Your task to perform on an android device: delete location history Image 0: 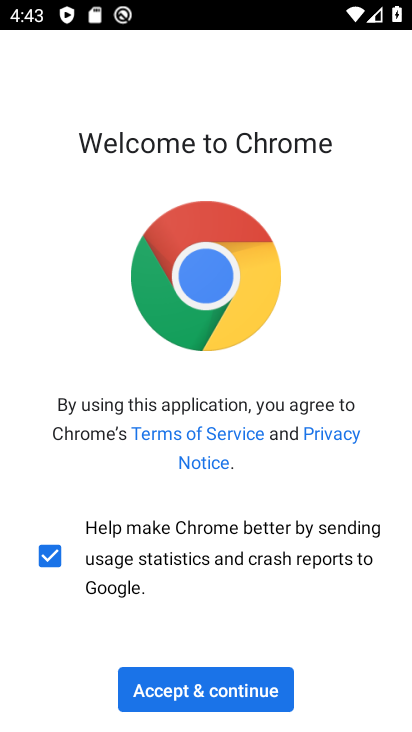
Step 0: click (207, 679)
Your task to perform on an android device: delete location history Image 1: 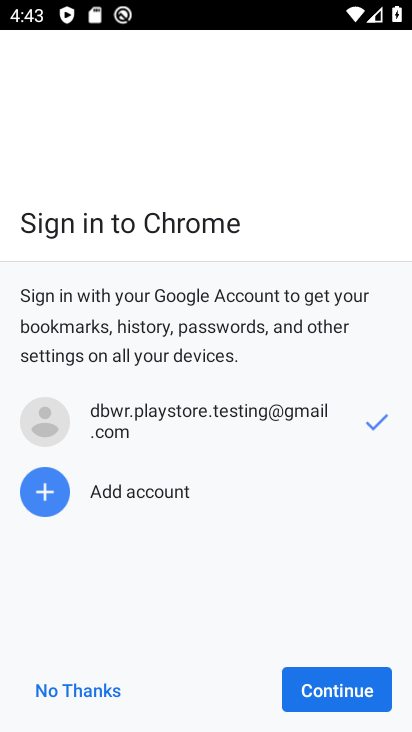
Step 1: click (328, 682)
Your task to perform on an android device: delete location history Image 2: 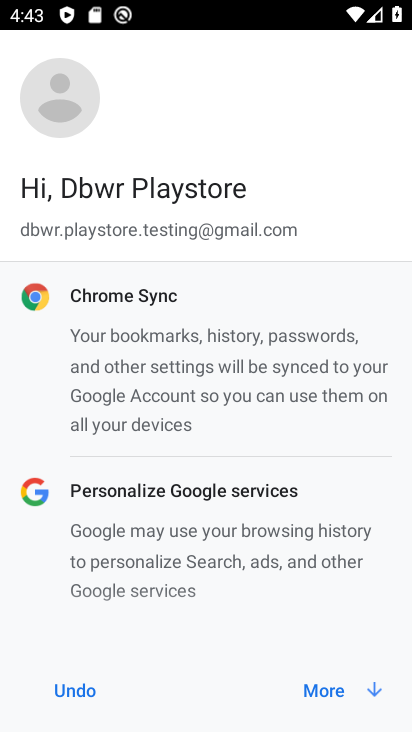
Step 2: click (328, 682)
Your task to perform on an android device: delete location history Image 3: 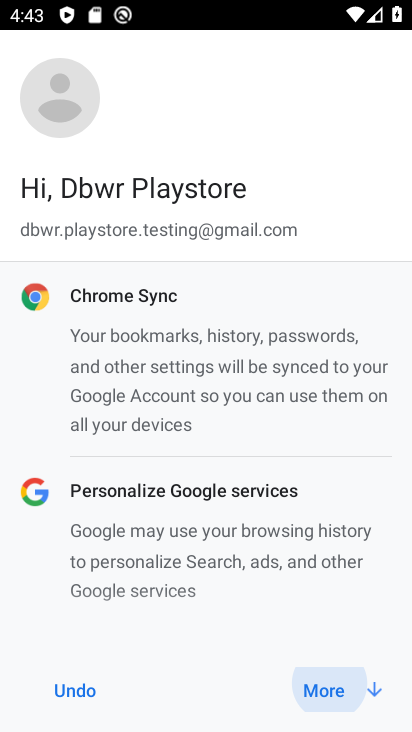
Step 3: click (328, 682)
Your task to perform on an android device: delete location history Image 4: 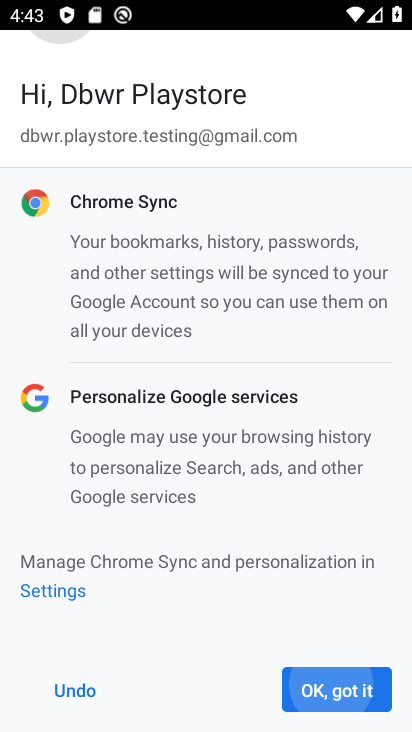
Step 4: click (328, 682)
Your task to perform on an android device: delete location history Image 5: 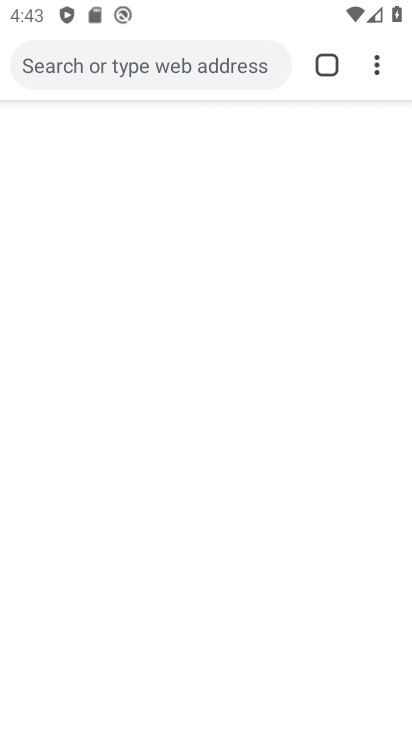
Step 5: click (328, 682)
Your task to perform on an android device: delete location history Image 6: 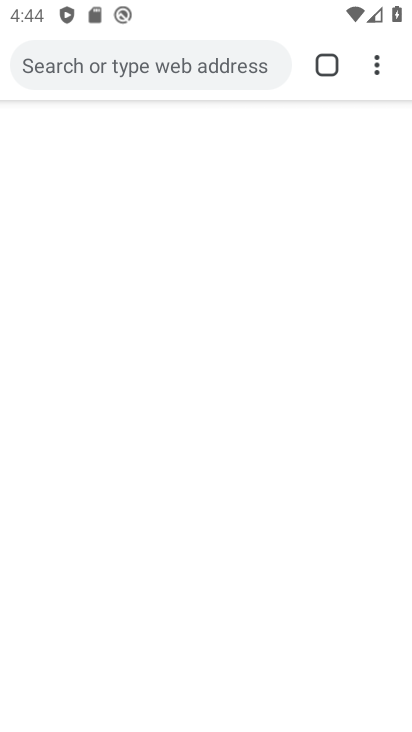
Step 6: click (328, 682)
Your task to perform on an android device: delete location history Image 7: 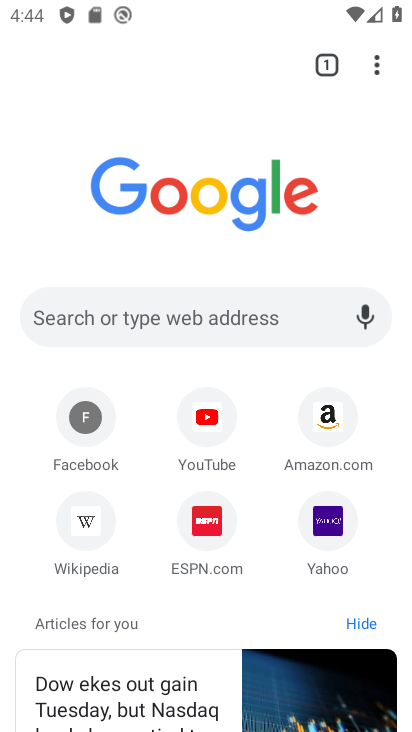
Step 7: press back button
Your task to perform on an android device: delete location history Image 8: 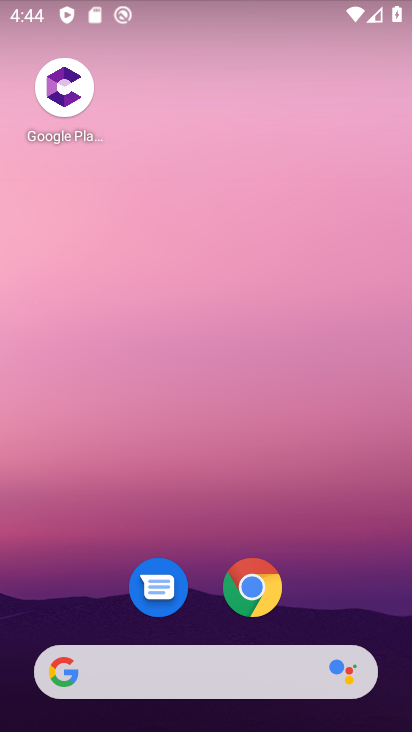
Step 8: drag from (274, 573) to (204, 86)
Your task to perform on an android device: delete location history Image 9: 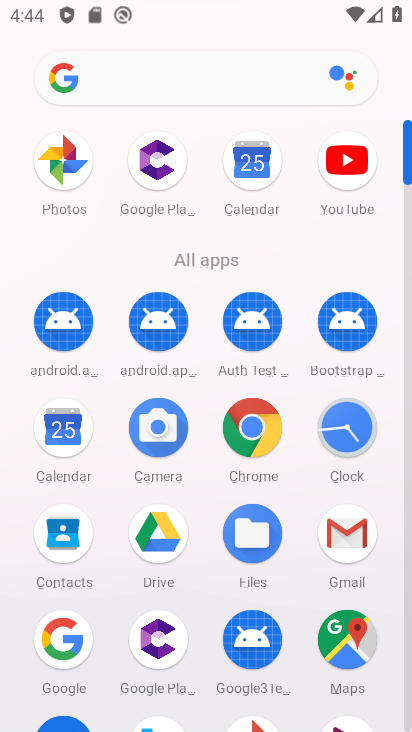
Step 9: drag from (297, 198) to (293, 125)
Your task to perform on an android device: delete location history Image 10: 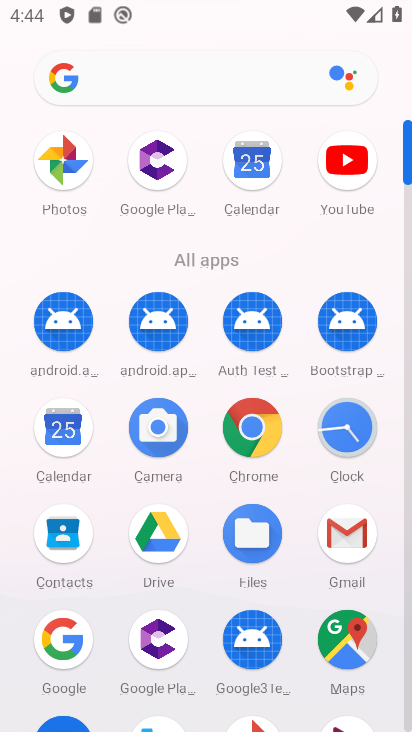
Step 10: drag from (202, 594) to (144, 128)
Your task to perform on an android device: delete location history Image 11: 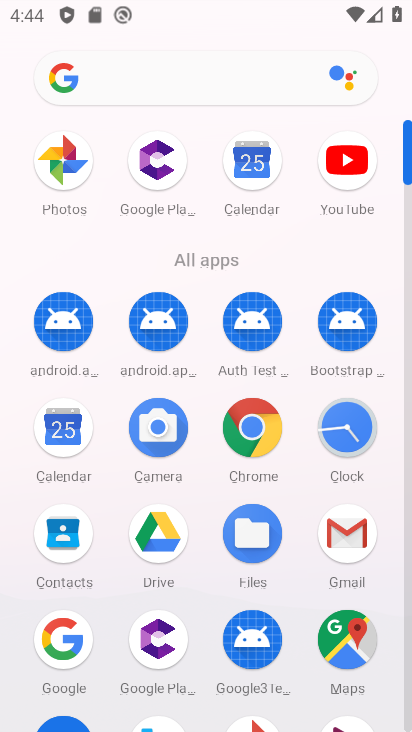
Step 11: drag from (170, 391) to (170, 67)
Your task to perform on an android device: delete location history Image 12: 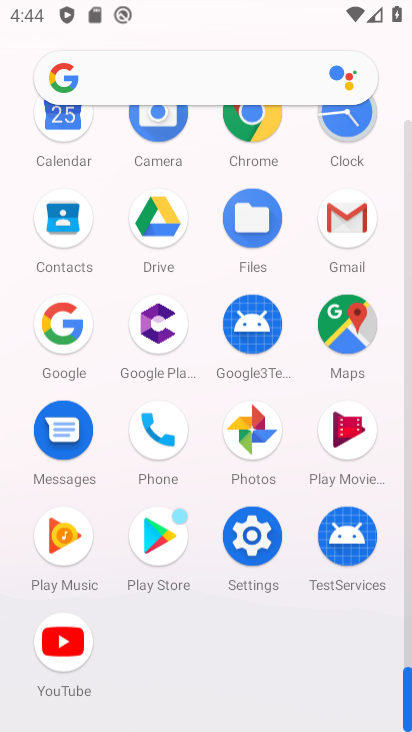
Step 12: drag from (187, 451) to (176, 204)
Your task to perform on an android device: delete location history Image 13: 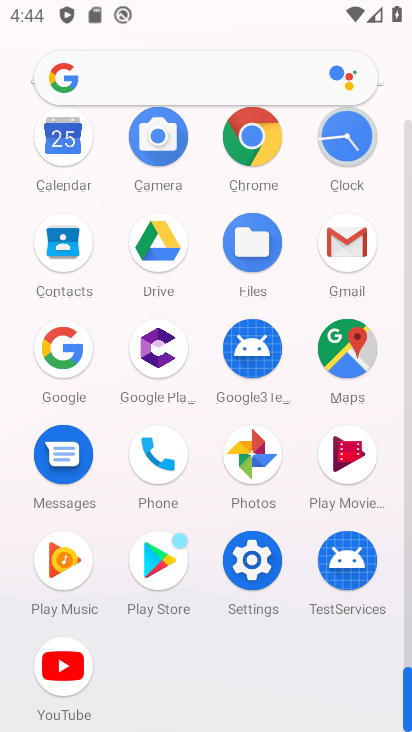
Step 13: click (256, 564)
Your task to perform on an android device: delete location history Image 14: 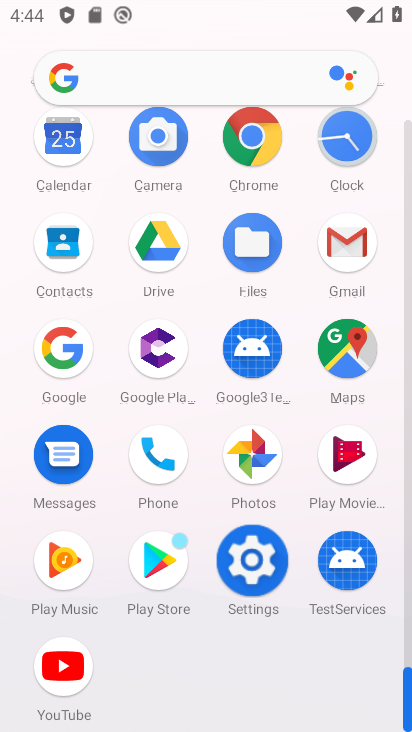
Step 14: click (258, 565)
Your task to perform on an android device: delete location history Image 15: 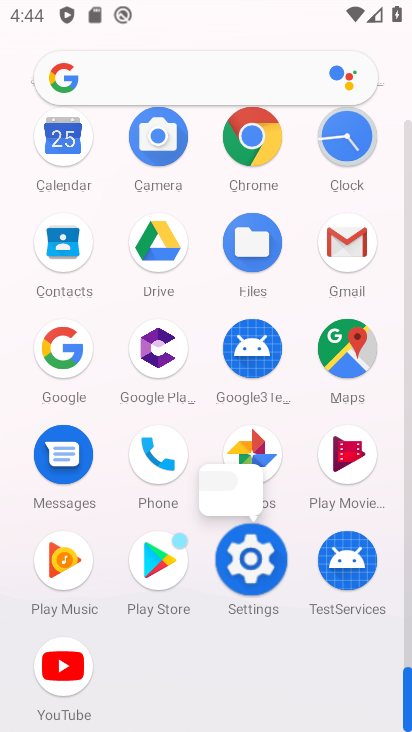
Step 15: click (259, 566)
Your task to perform on an android device: delete location history Image 16: 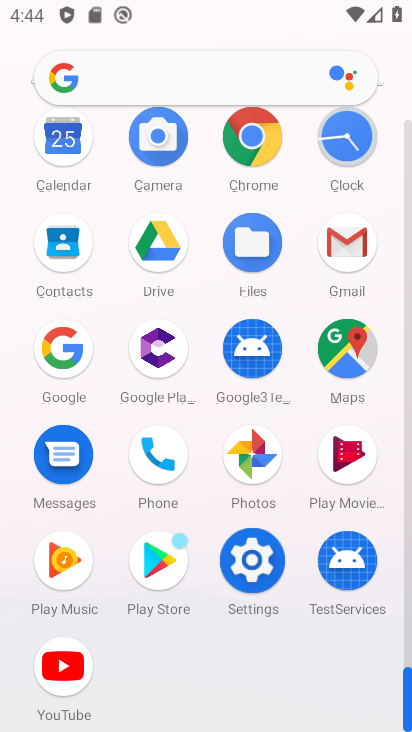
Step 16: click (259, 566)
Your task to perform on an android device: delete location history Image 17: 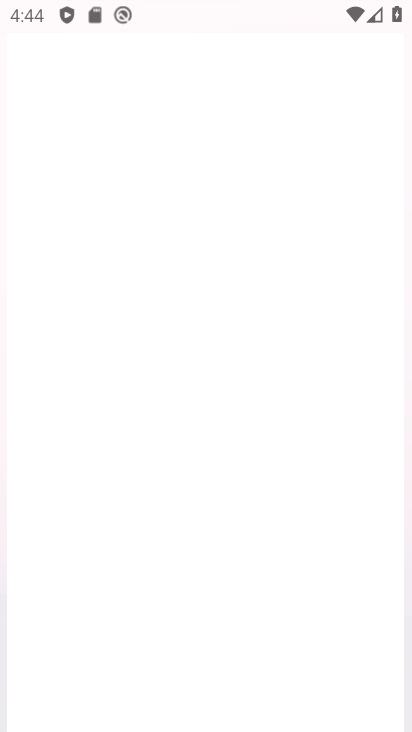
Step 17: click (259, 566)
Your task to perform on an android device: delete location history Image 18: 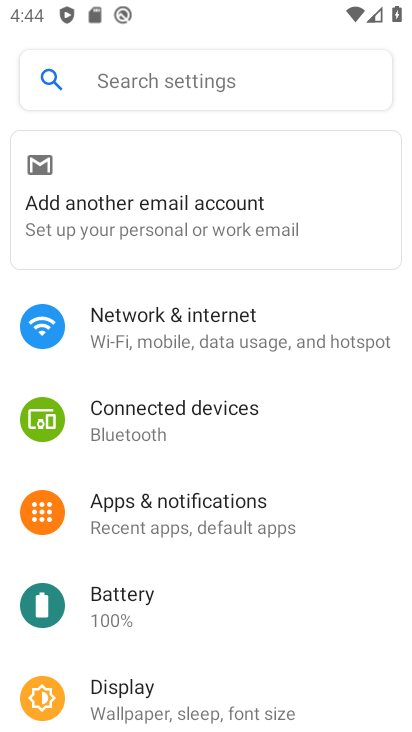
Step 18: drag from (120, 210) to (167, 237)
Your task to perform on an android device: delete location history Image 19: 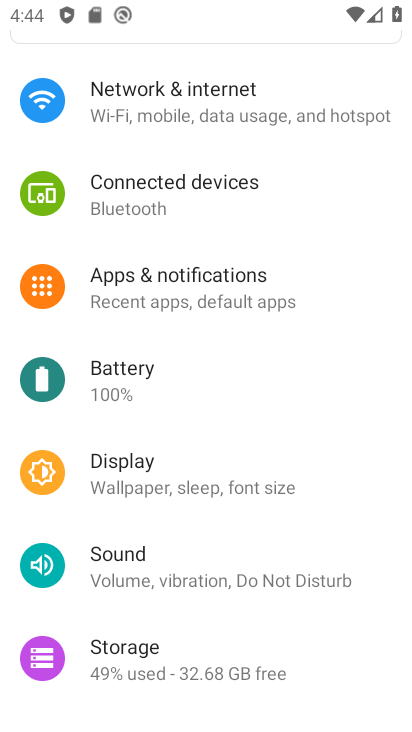
Step 19: drag from (178, 444) to (156, 277)
Your task to perform on an android device: delete location history Image 20: 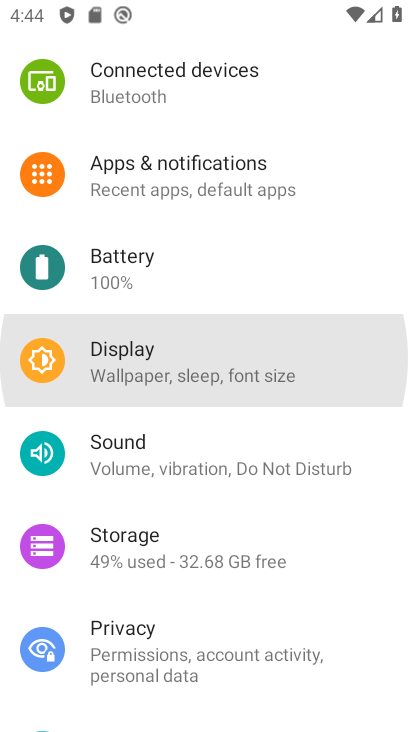
Step 20: drag from (189, 515) to (189, 212)
Your task to perform on an android device: delete location history Image 21: 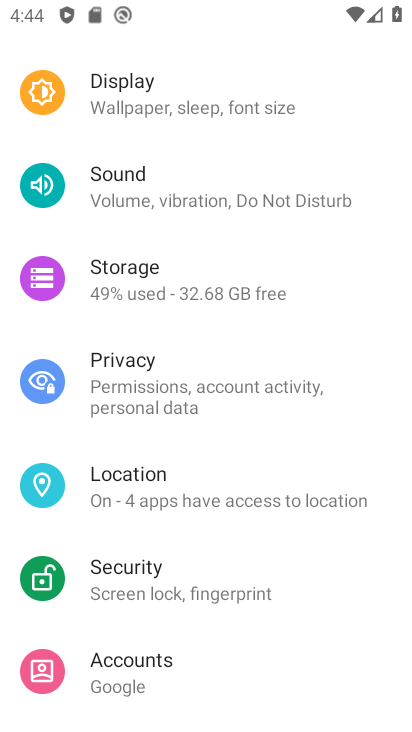
Step 21: click (201, 201)
Your task to perform on an android device: delete location history Image 22: 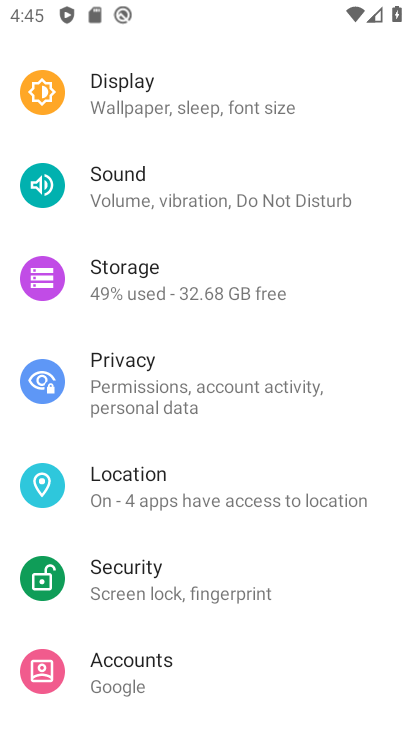
Step 22: drag from (197, 468) to (197, 218)
Your task to perform on an android device: delete location history Image 23: 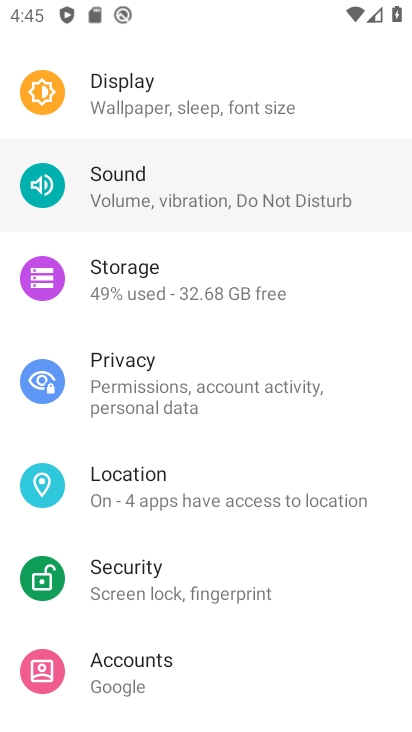
Step 23: drag from (227, 531) to (227, 261)
Your task to perform on an android device: delete location history Image 24: 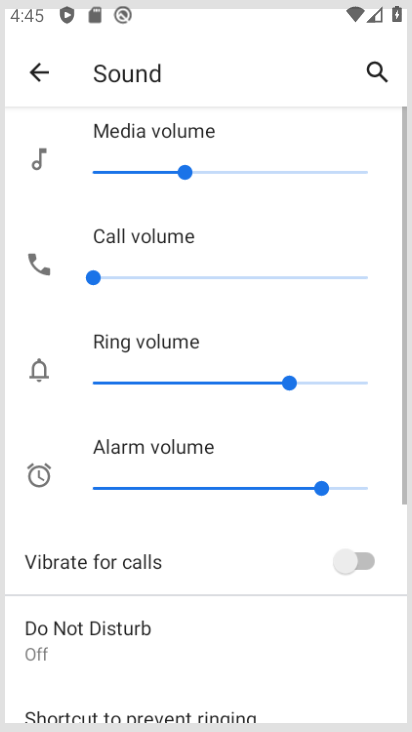
Step 24: drag from (233, 516) to (210, 234)
Your task to perform on an android device: delete location history Image 25: 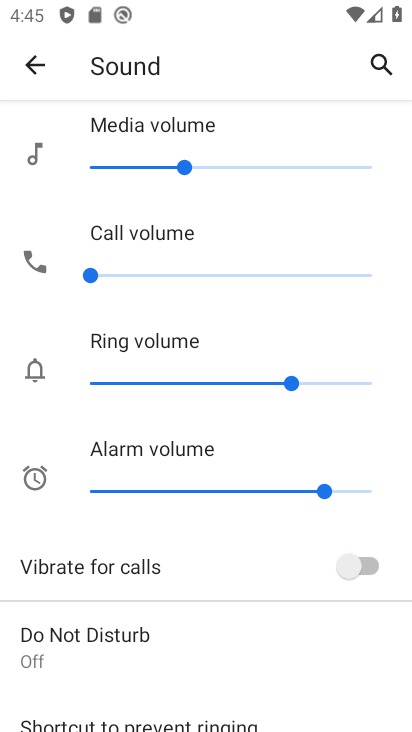
Step 25: click (33, 68)
Your task to perform on an android device: delete location history Image 26: 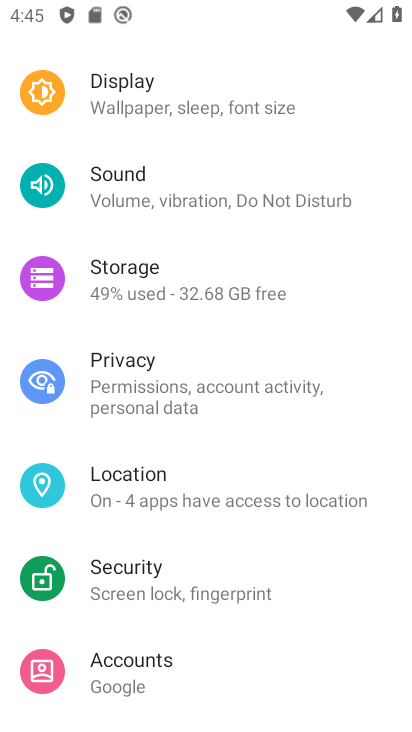
Step 26: click (143, 484)
Your task to perform on an android device: delete location history Image 27: 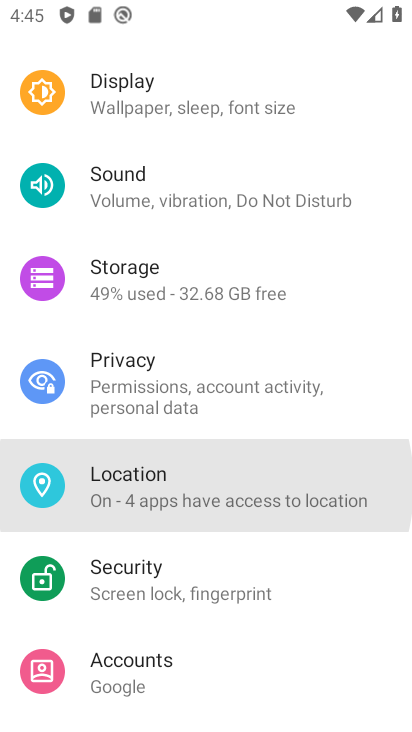
Step 27: click (142, 485)
Your task to perform on an android device: delete location history Image 28: 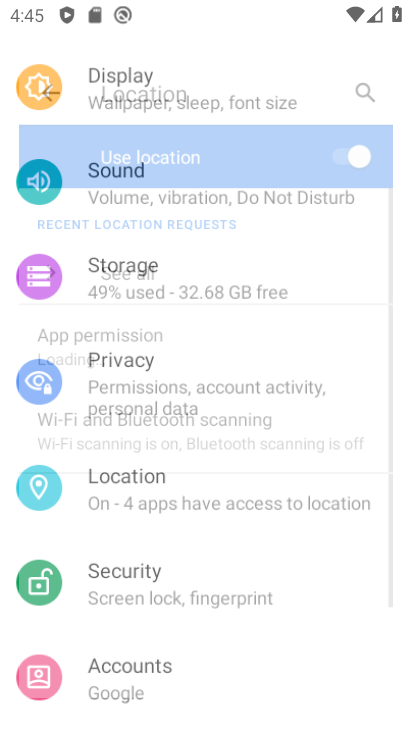
Step 28: click (142, 485)
Your task to perform on an android device: delete location history Image 29: 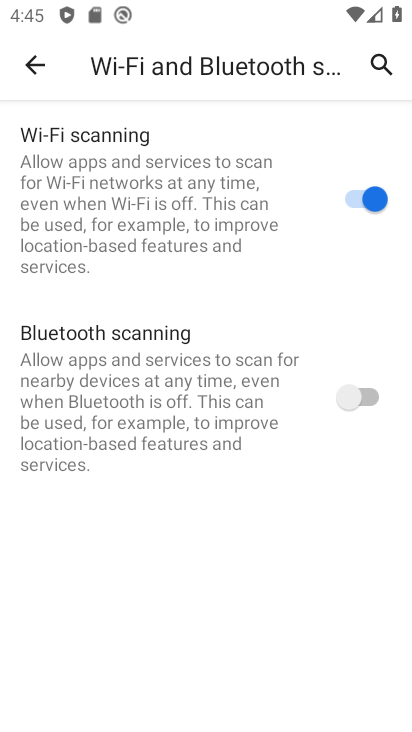
Step 29: click (30, 65)
Your task to perform on an android device: delete location history Image 30: 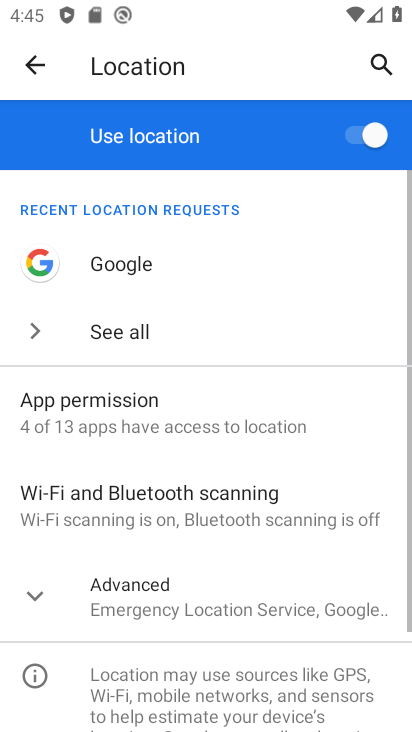
Step 30: drag from (182, 644) to (160, 240)
Your task to perform on an android device: delete location history Image 31: 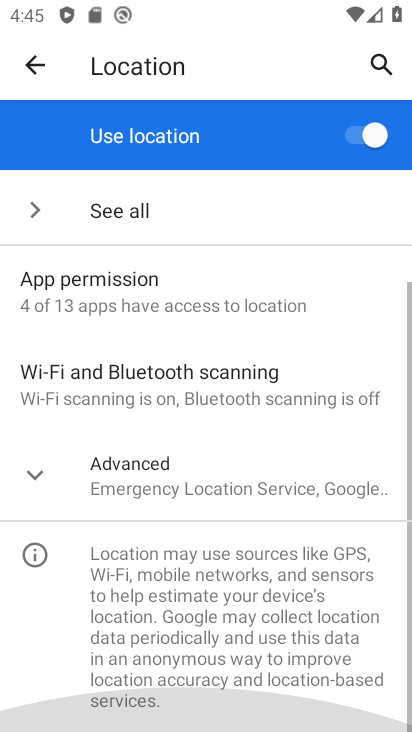
Step 31: drag from (124, 521) to (124, 188)
Your task to perform on an android device: delete location history Image 32: 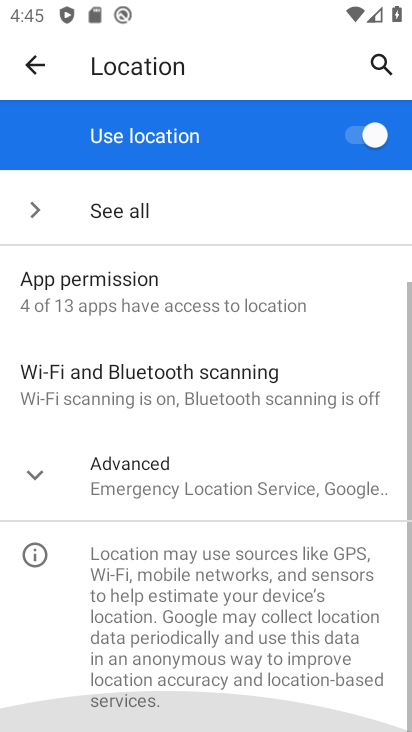
Step 32: drag from (194, 557) to (194, 127)
Your task to perform on an android device: delete location history Image 33: 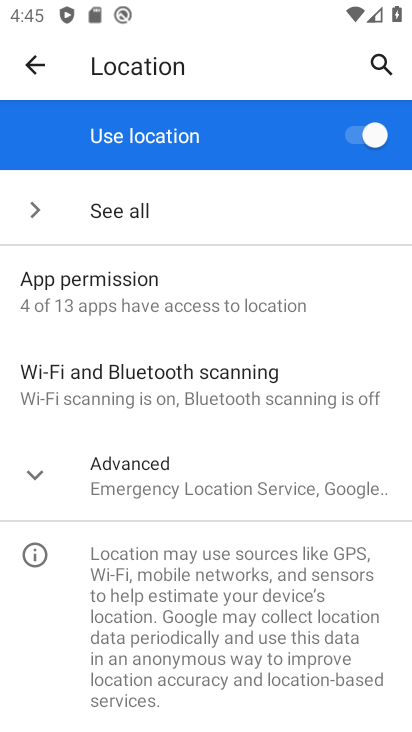
Step 33: click (123, 479)
Your task to perform on an android device: delete location history Image 34: 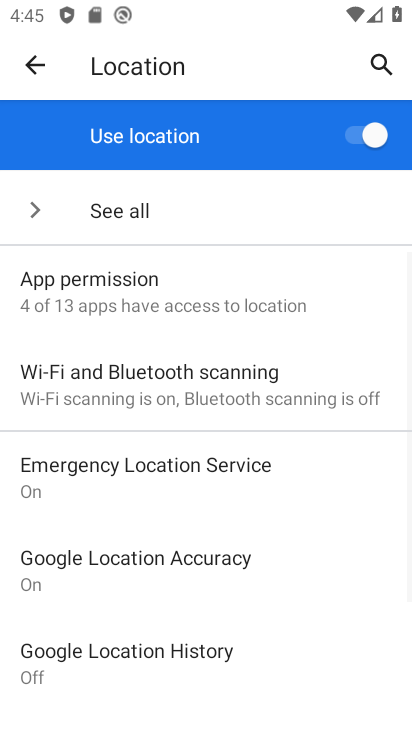
Step 34: drag from (172, 615) to (174, 282)
Your task to perform on an android device: delete location history Image 35: 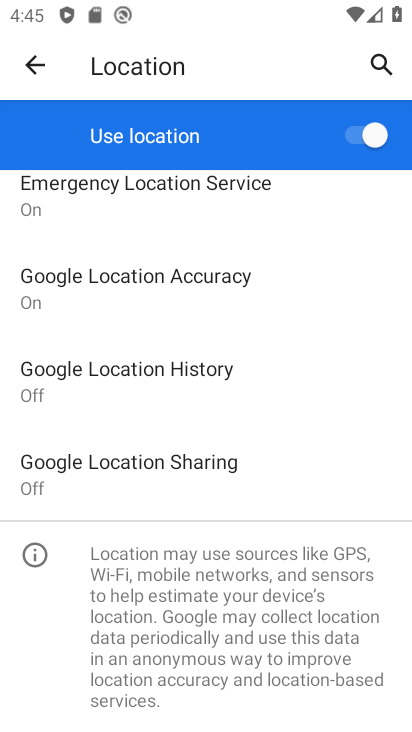
Step 35: click (116, 368)
Your task to perform on an android device: delete location history Image 36: 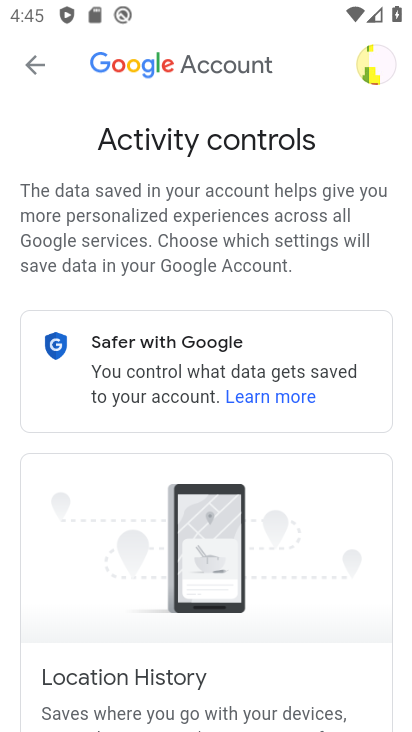
Step 36: drag from (269, 460) to (272, 198)
Your task to perform on an android device: delete location history Image 37: 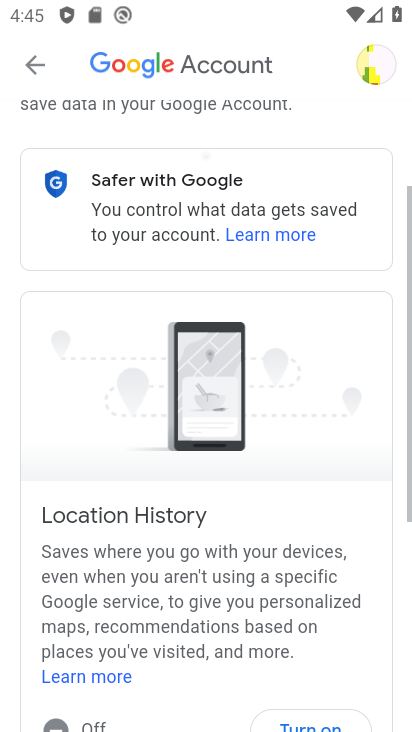
Step 37: drag from (302, 462) to (286, 108)
Your task to perform on an android device: delete location history Image 38: 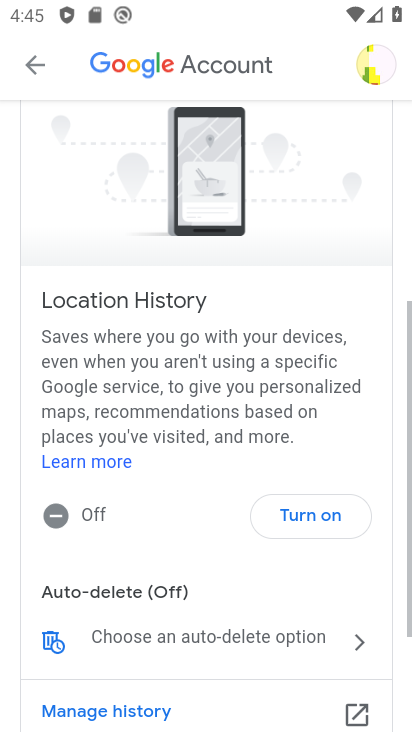
Step 38: drag from (219, 414) to (219, 76)
Your task to perform on an android device: delete location history Image 39: 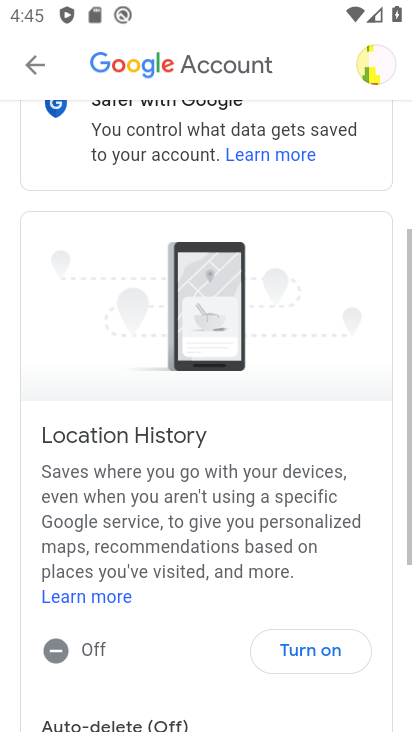
Step 39: drag from (151, 419) to (169, 107)
Your task to perform on an android device: delete location history Image 40: 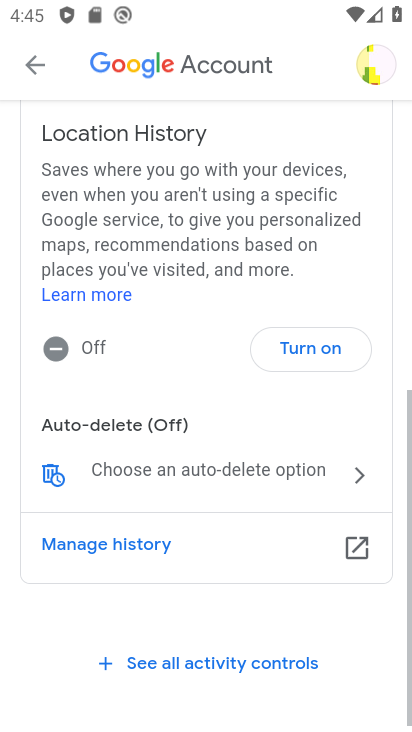
Step 40: drag from (200, 380) to (200, 101)
Your task to perform on an android device: delete location history Image 41: 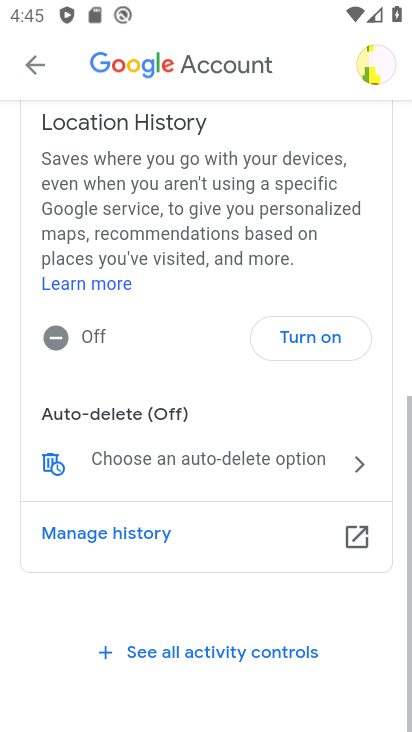
Step 41: drag from (189, 510) to (211, 215)
Your task to perform on an android device: delete location history Image 42: 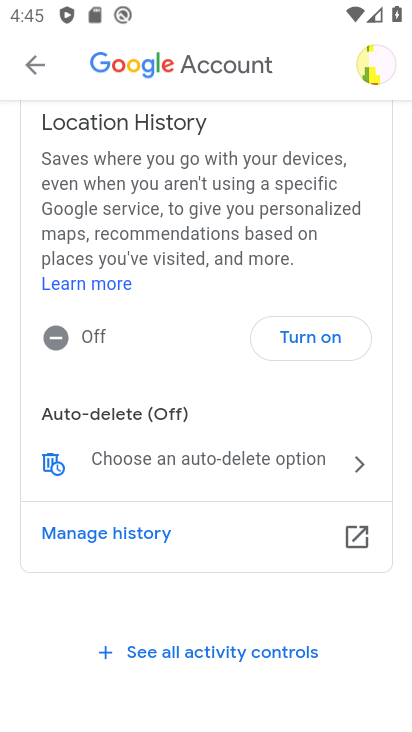
Step 42: click (51, 462)
Your task to perform on an android device: delete location history Image 43: 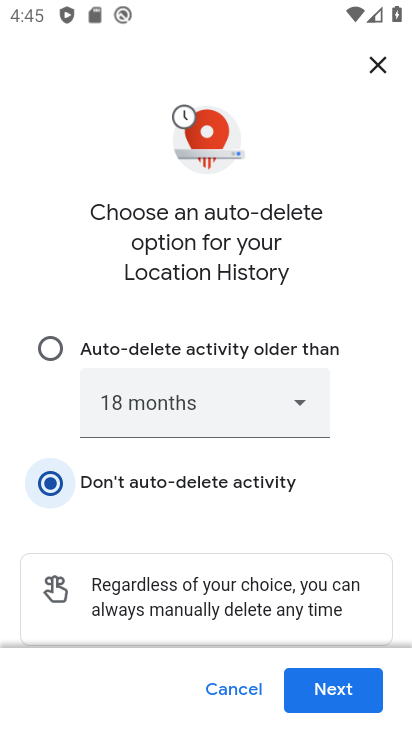
Step 43: click (306, 684)
Your task to perform on an android device: delete location history Image 44: 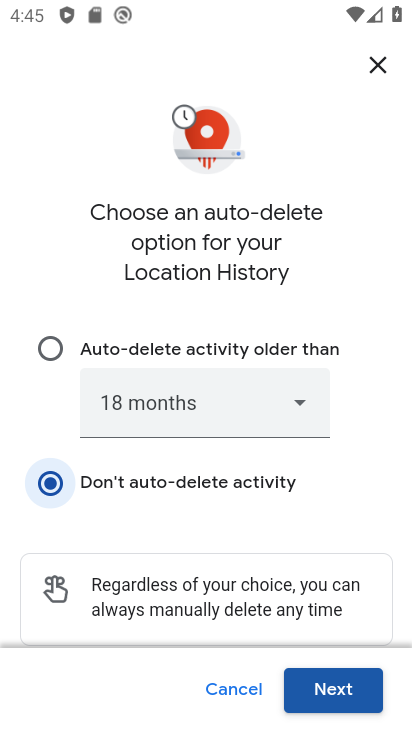
Step 44: click (307, 683)
Your task to perform on an android device: delete location history Image 45: 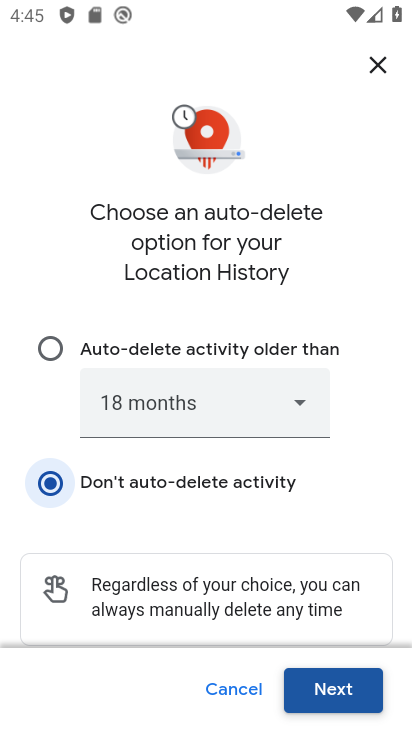
Step 45: click (56, 343)
Your task to perform on an android device: delete location history Image 46: 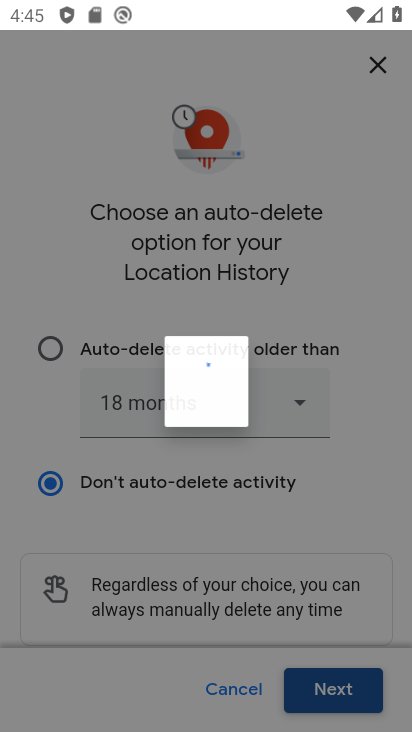
Step 46: click (56, 343)
Your task to perform on an android device: delete location history Image 47: 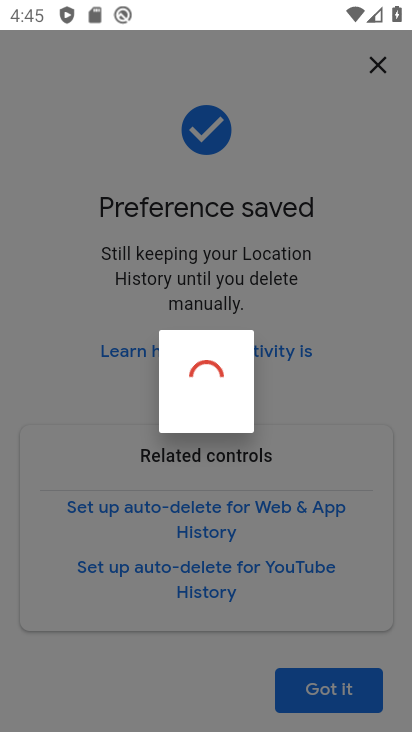
Step 47: click (56, 343)
Your task to perform on an android device: delete location history Image 48: 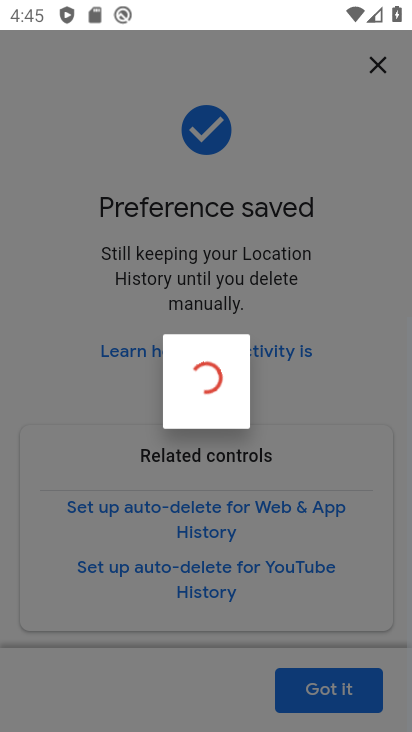
Step 48: click (56, 343)
Your task to perform on an android device: delete location history Image 49: 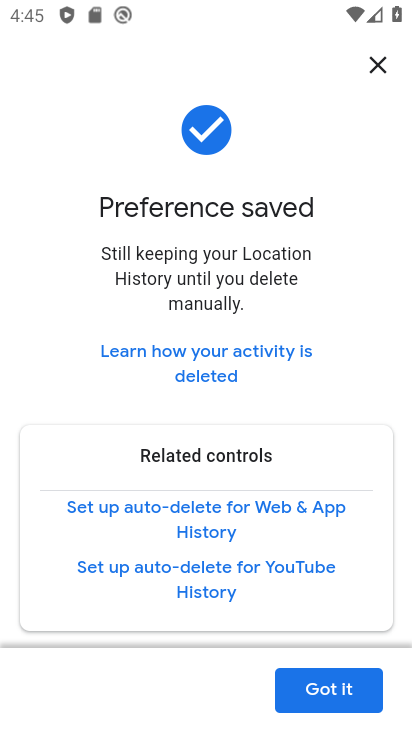
Step 49: click (330, 689)
Your task to perform on an android device: delete location history Image 50: 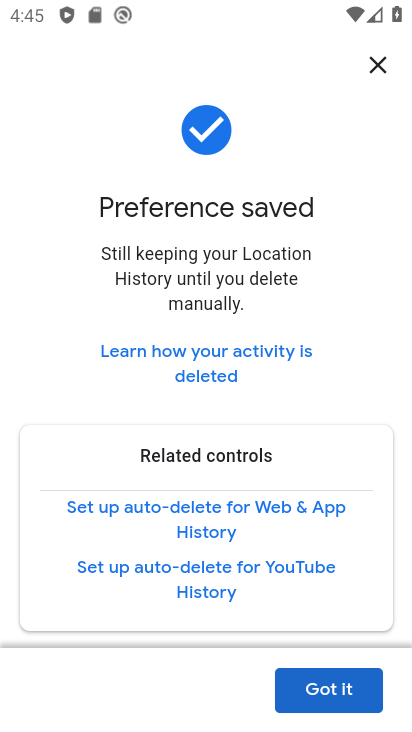
Step 50: click (330, 689)
Your task to perform on an android device: delete location history Image 51: 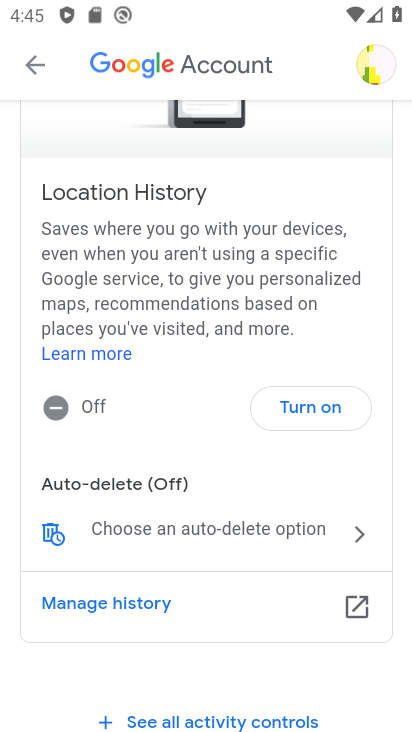
Step 51: task complete